Your task to perform on an android device: Open settings Image 0: 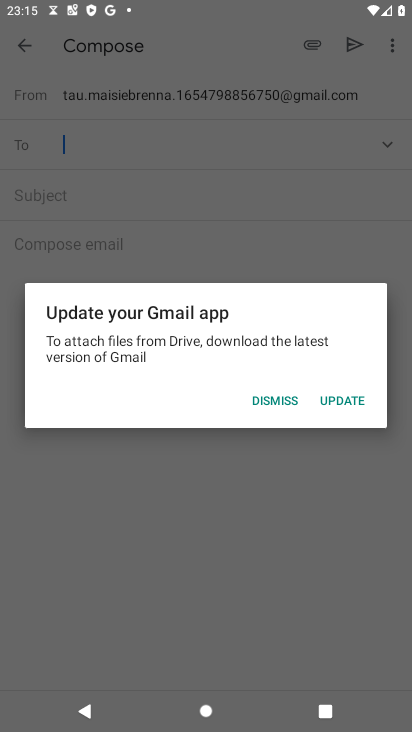
Step 0: press home button
Your task to perform on an android device: Open settings Image 1: 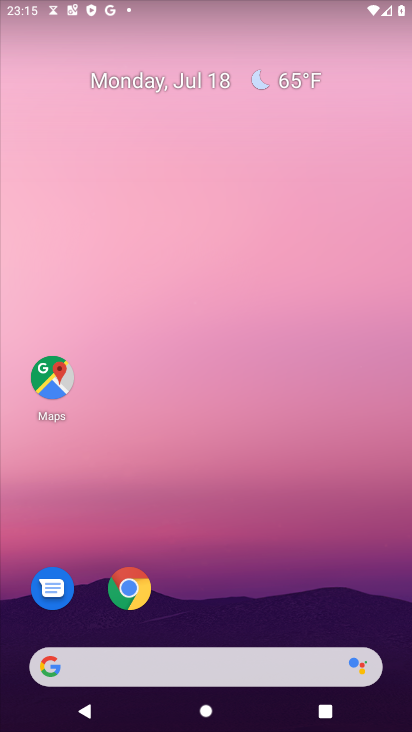
Step 1: drag from (215, 670) to (265, 99)
Your task to perform on an android device: Open settings Image 2: 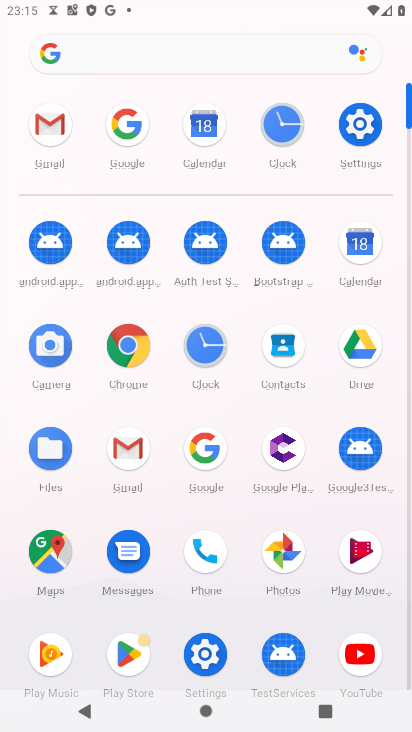
Step 2: click (360, 125)
Your task to perform on an android device: Open settings Image 3: 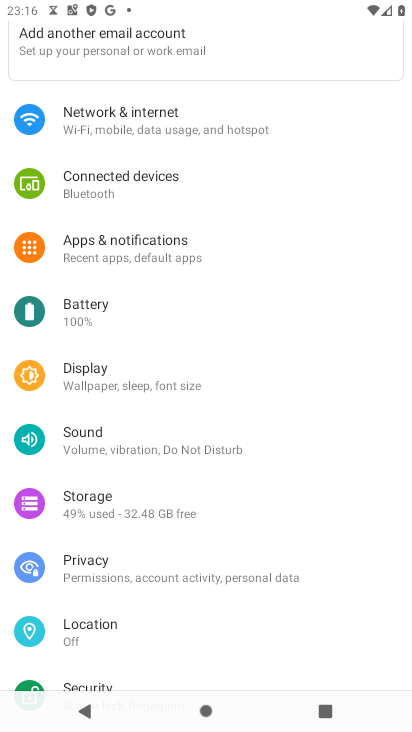
Step 3: task complete